Your task to perform on an android device: change keyboard looks Image 0: 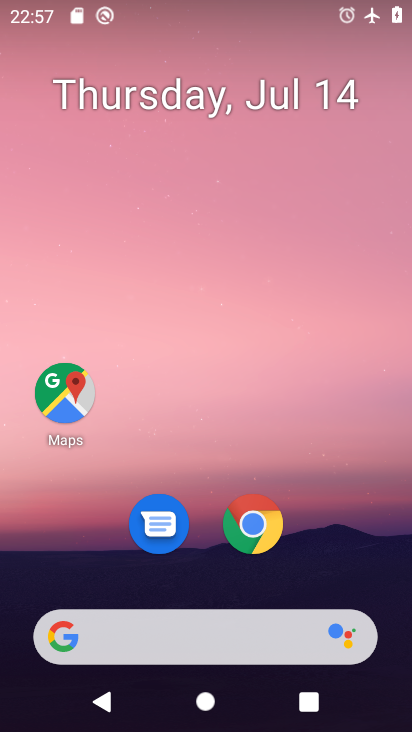
Step 0: drag from (350, 519) to (330, 0)
Your task to perform on an android device: change keyboard looks Image 1: 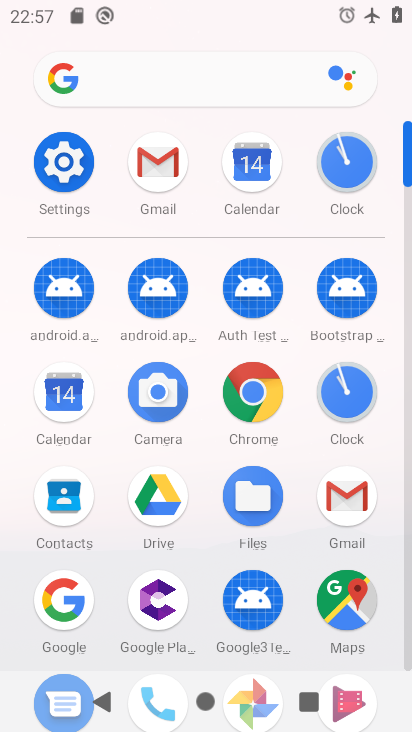
Step 1: click (65, 162)
Your task to perform on an android device: change keyboard looks Image 2: 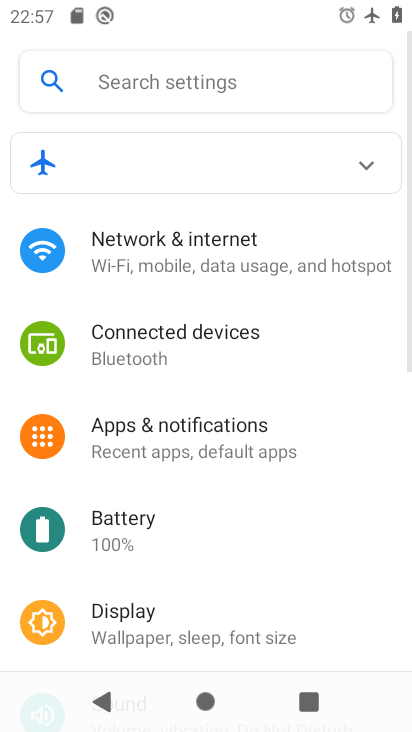
Step 2: drag from (270, 534) to (214, 48)
Your task to perform on an android device: change keyboard looks Image 3: 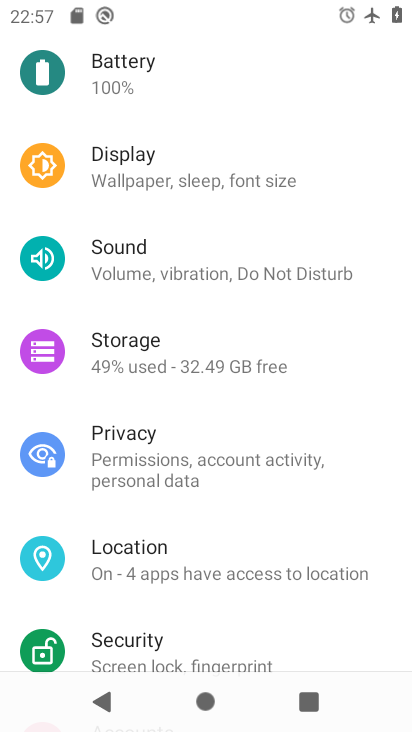
Step 3: drag from (227, 498) to (260, 3)
Your task to perform on an android device: change keyboard looks Image 4: 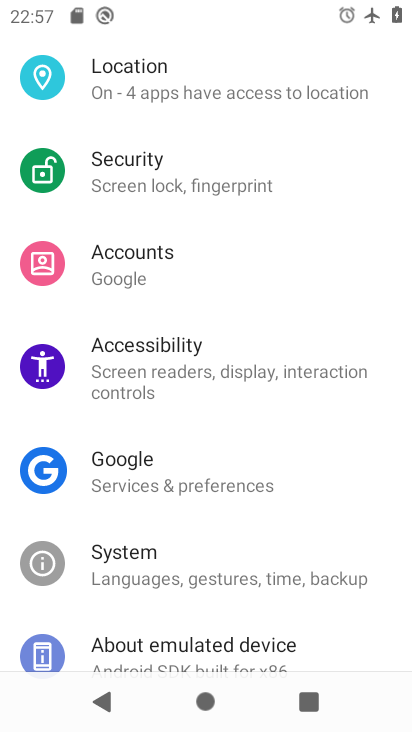
Step 4: click (223, 582)
Your task to perform on an android device: change keyboard looks Image 5: 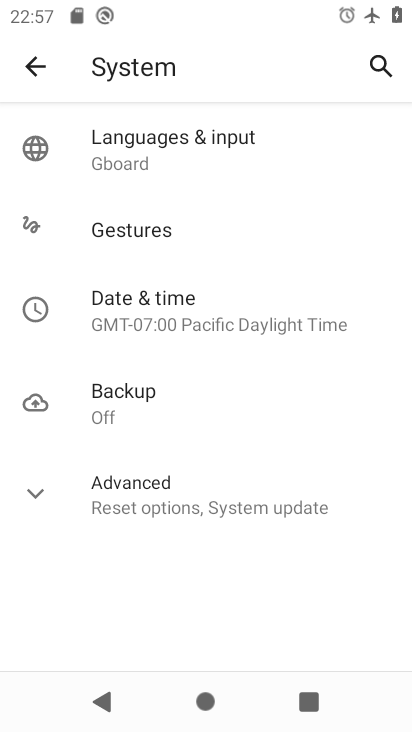
Step 5: click (186, 152)
Your task to perform on an android device: change keyboard looks Image 6: 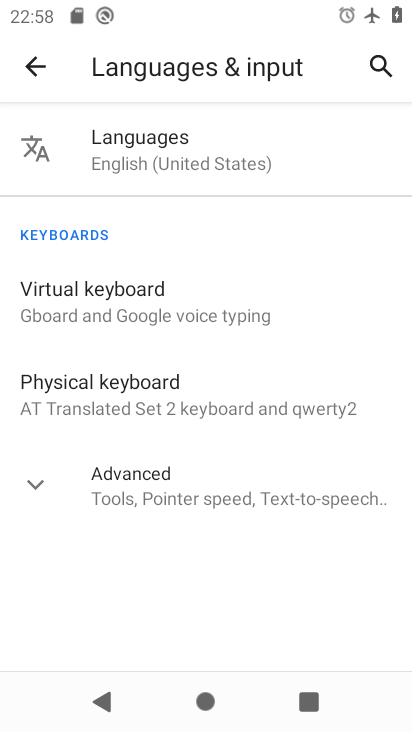
Step 6: click (145, 290)
Your task to perform on an android device: change keyboard looks Image 7: 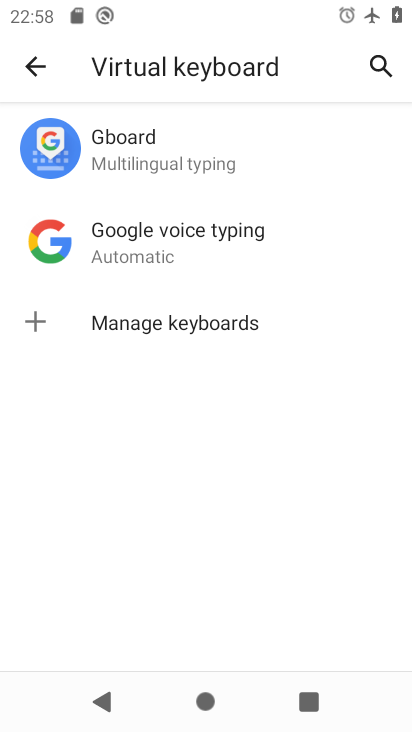
Step 7: click (168, 153)
Your task to perform on an android device: change keyboard looks Image 8: 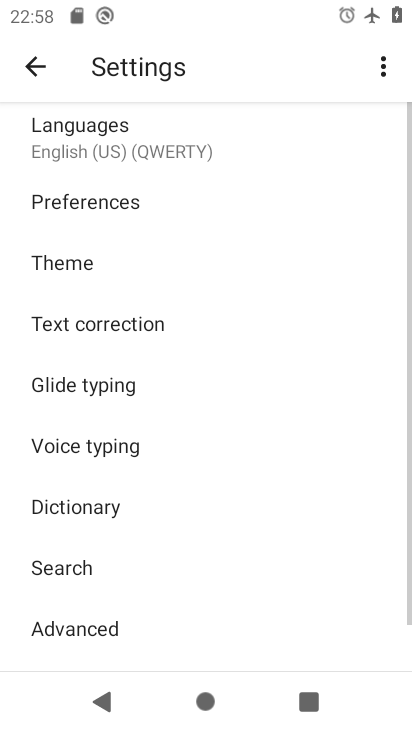
Step 8: click (77, 259)
Your task to perform on an android device: change keyboard looks Image 9: 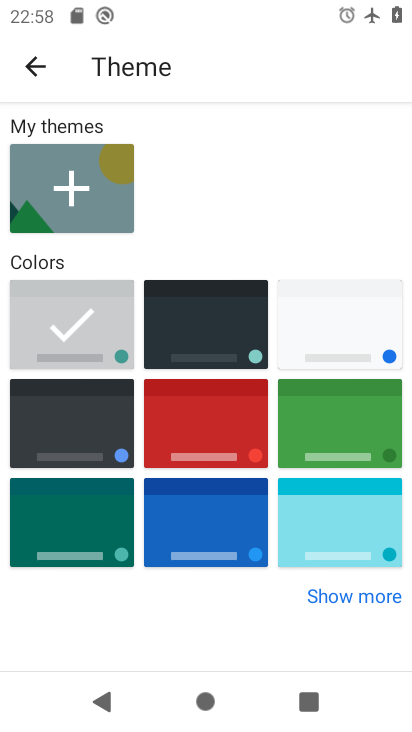
Step 9: click (185, 412)
Your task to perform on an android device: change keyboard looks Image 10: 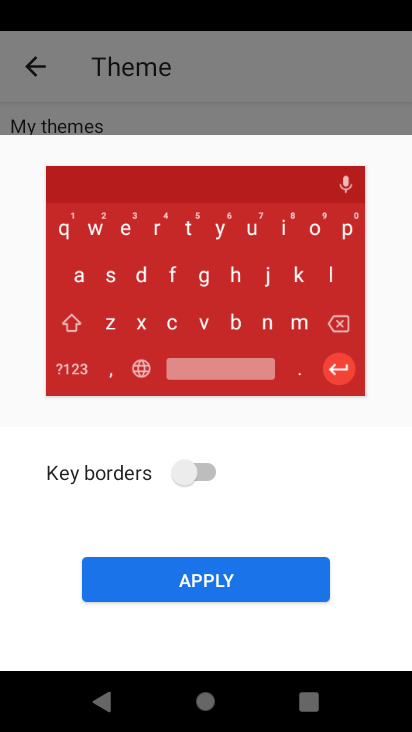
Step 10: click (201, 476)
Your task to perform on an android device: change keyboard looks Image 11: 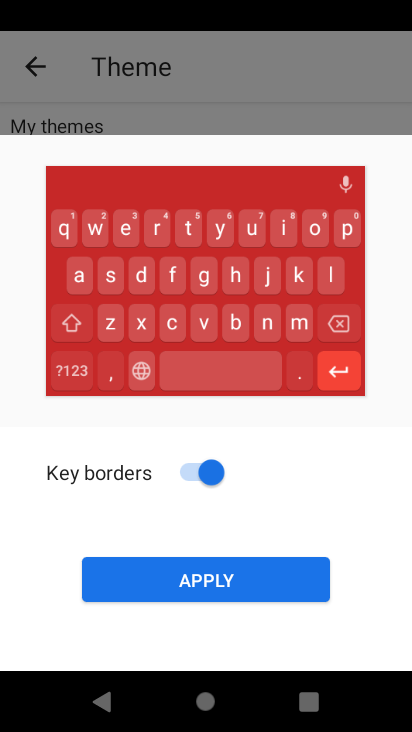
Step 11: click (216, 574)
Your task to perform on an android device: change keyboard looks Image 12: 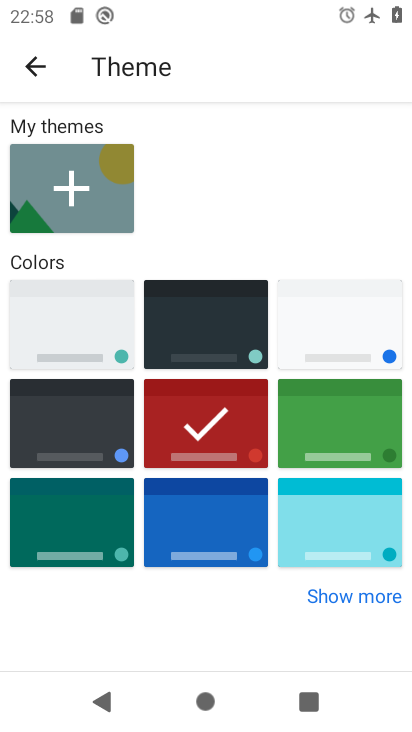
Step 12: task complete